Your task to perform on an android device: Open ESPN.com Image 0: 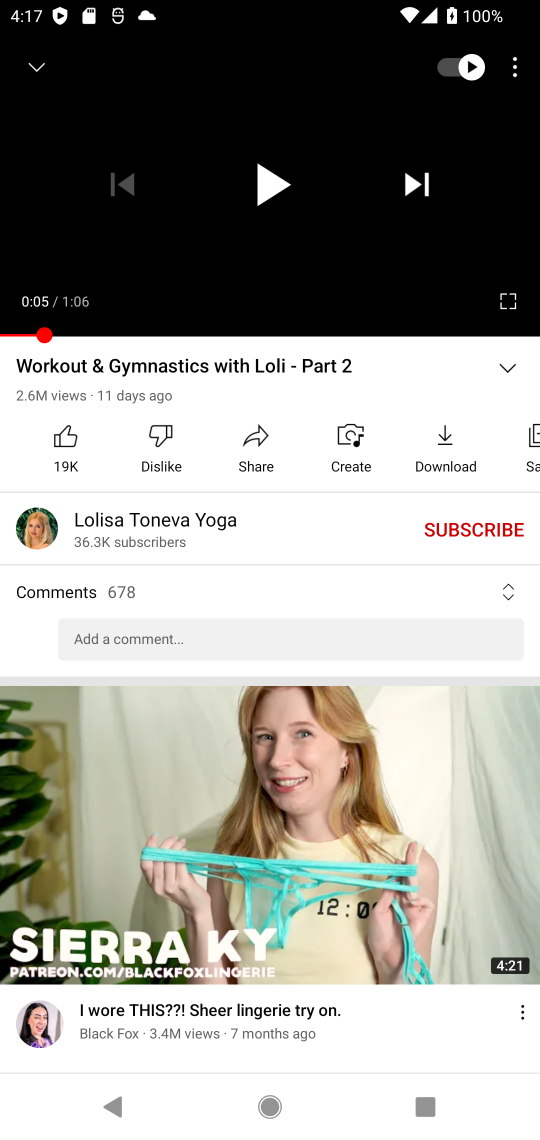
Step 0: press home button
Your task to perform on an android device: Open ESPN.com Image 1: 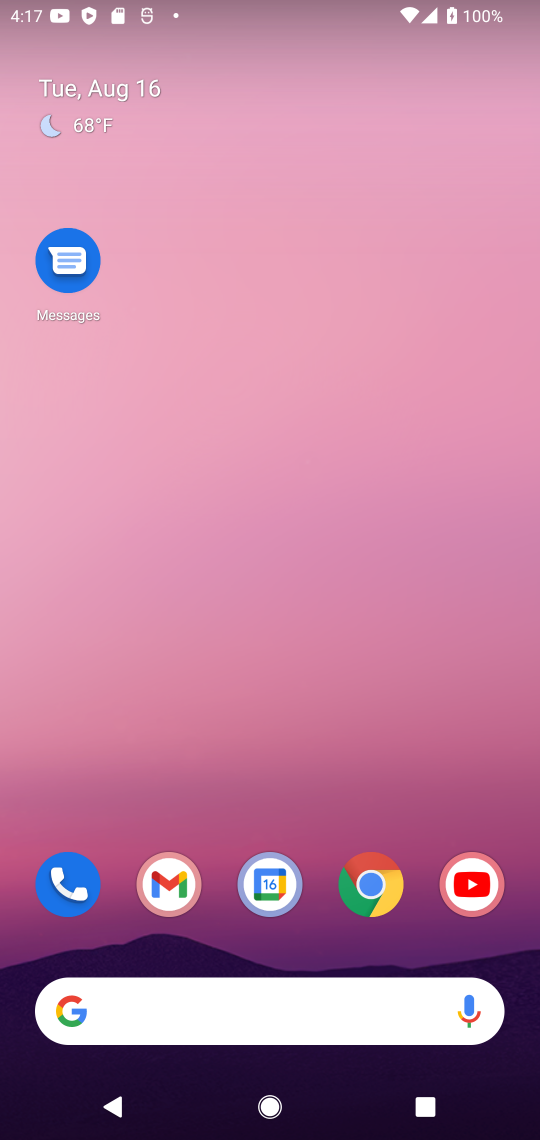
Step 1: click (221, 1016)
Your task to perform on an android device: Open ESPN.com Image 2: 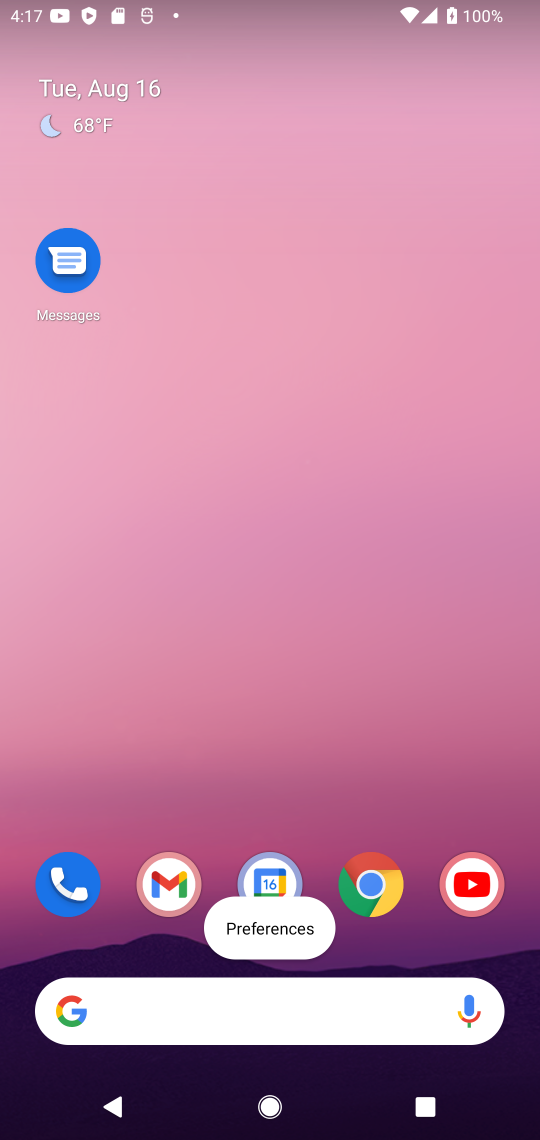
Step 2: click (188, 1016)
Your task to perform on an android device: Open ESPN.com Image 3: 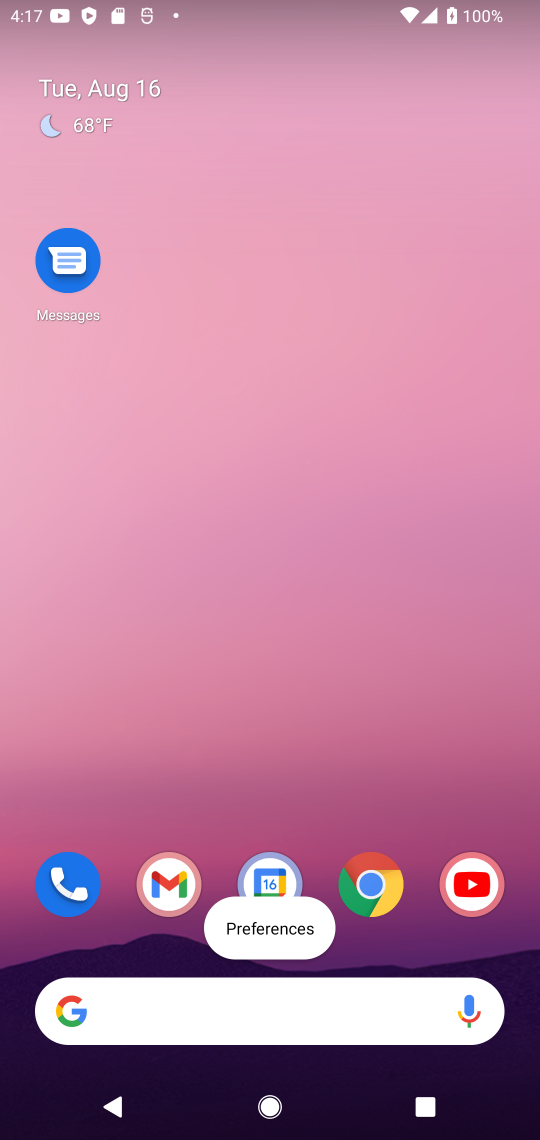
Step 3: click (267, 1038)
Your task to perform on an android device: Open ESPN.com Image 4: 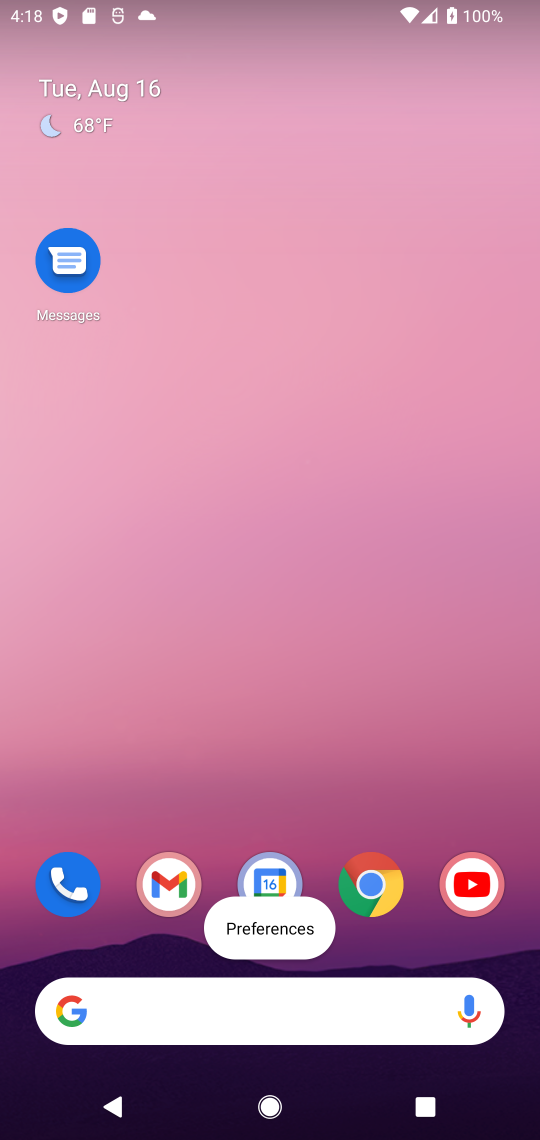
Step 4: task complete